Your task to perform on an android device: toggle priority inbox in the gmail app Image 0: 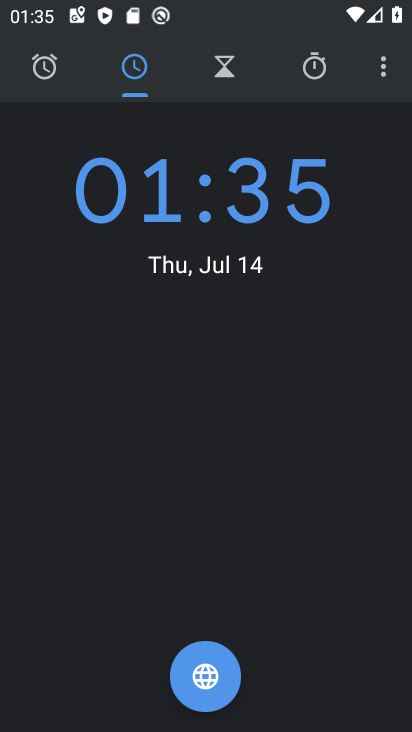
Step 0: press home button
Your task to perform on an android device: toggle priority inbox in the gmail app Image 1: 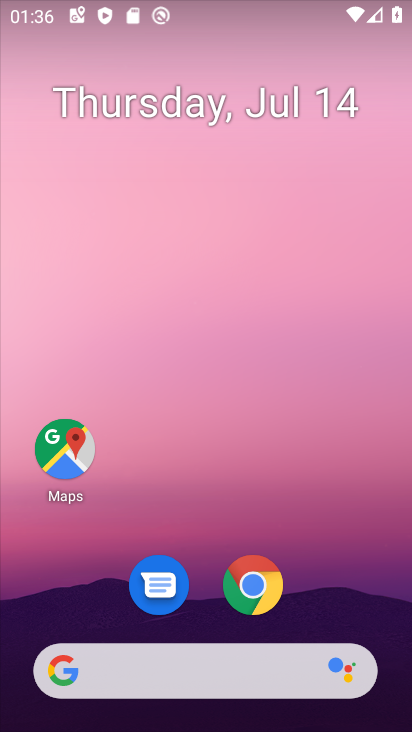
Step 1: drag from (333, 578) to (285, 1)
Your task to perform on an android device: toggle priority inbox in the gmail app Image 2: 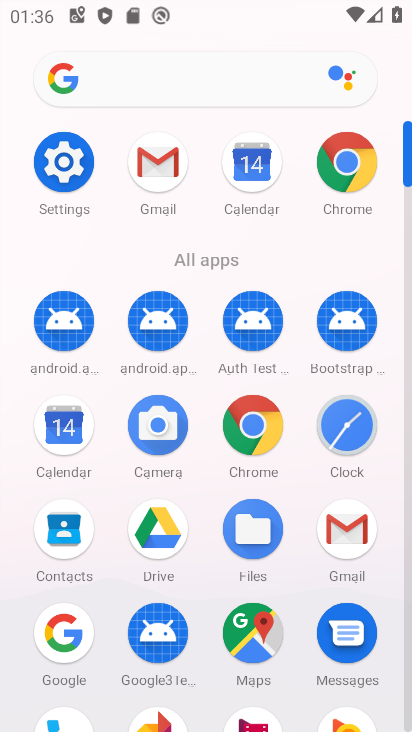
Step 2: click (160, 183)
Your task to perform on an android device: toggle priority inbox in the gmail app Image 3: 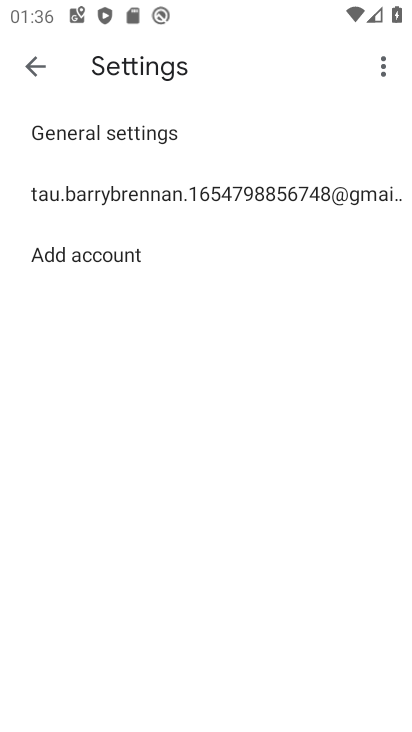
Step 3: click (161, 191)
Your task to perform on an android device: toggle priority inbox in the gmail app Image 4: 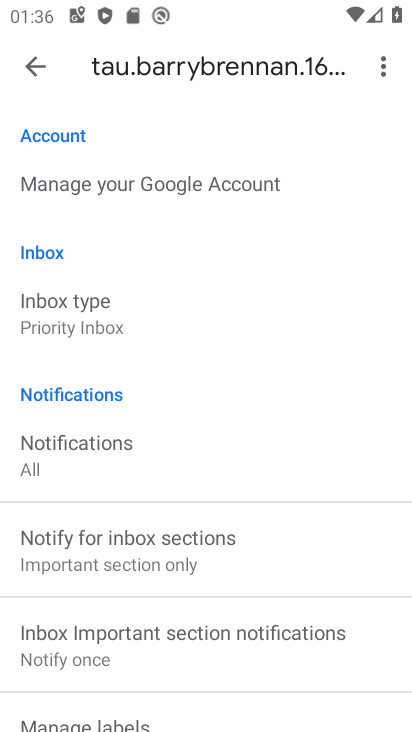
Step 4: click (106, 309)
Your task to perform on an android device: toggle priority inbox in the gmail app Image 5: 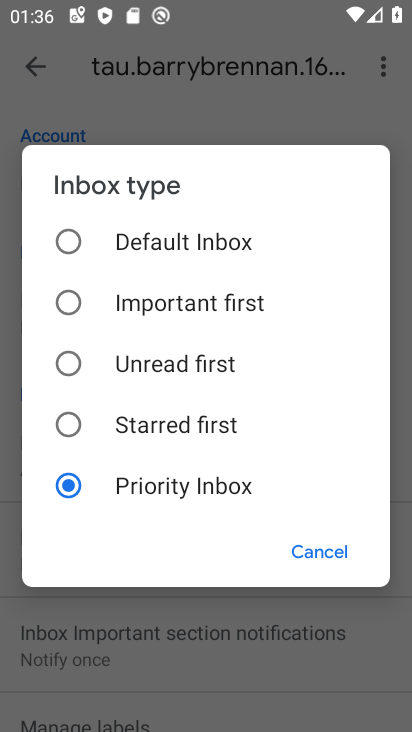
Step 5: click (70, 237)
Your task to perform on an android device: toggle priority inbox in the gmail app Image 6: 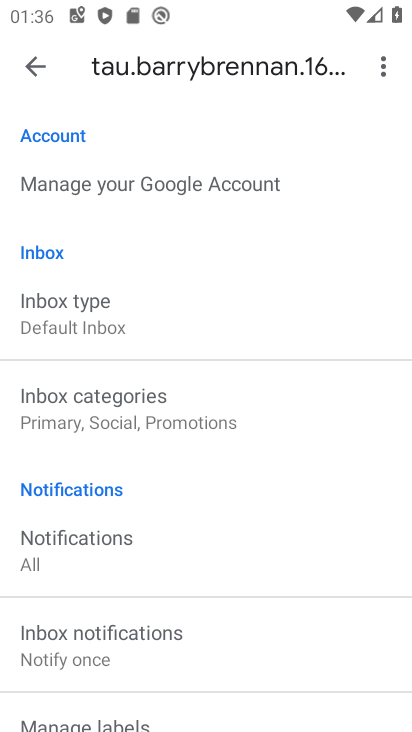
Step 6: task complete